Your task to perform on an android device: Open the map Image 0: 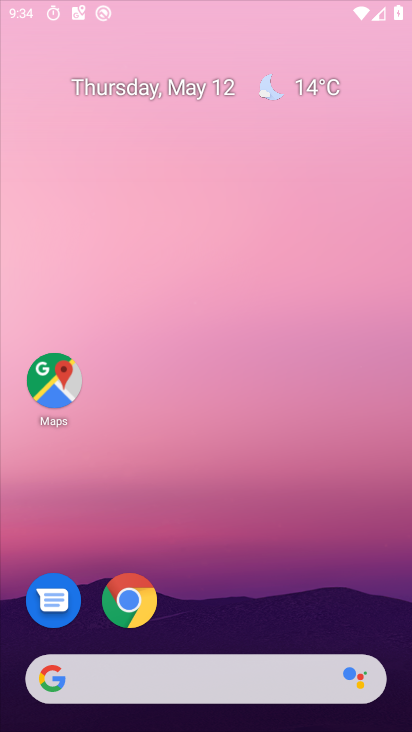
Step 0: press back button
Your task to perform on an android device: Open the map Image 1: 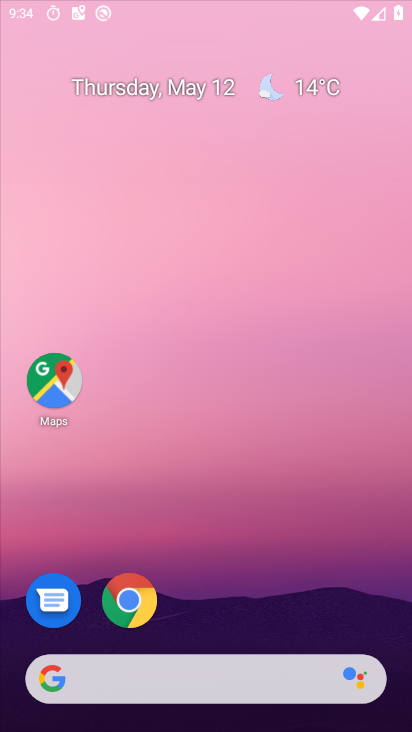
Step 1: click (139, 20)
Your task to perform on an android device: Open the map Image 2: 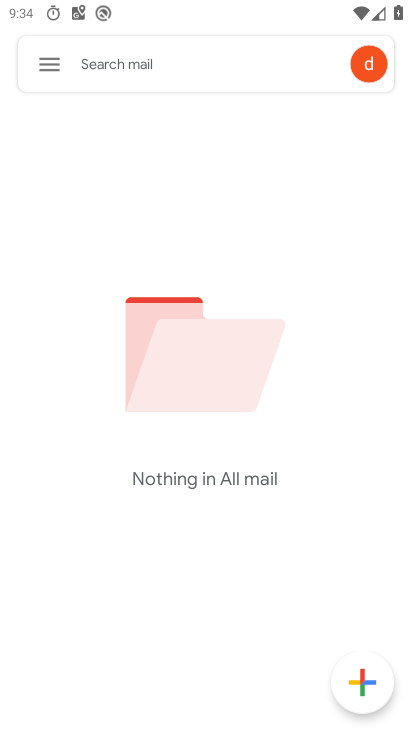
Step 2: press home button
Your task to perform on an android device: Open the map Image 3: 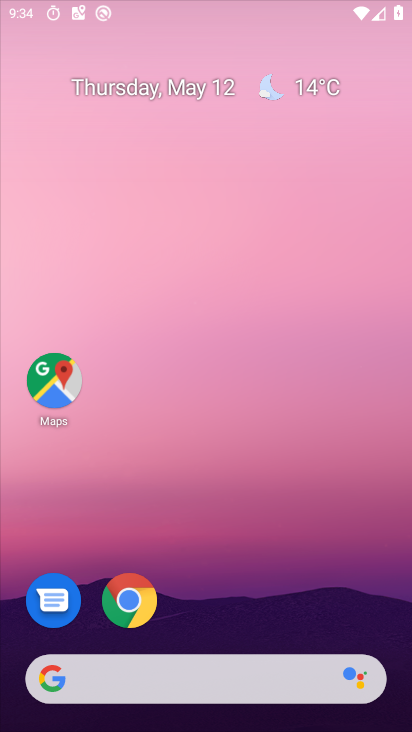
Step 3: press home button
Your task to perform on an android device: Open the map Image 4: 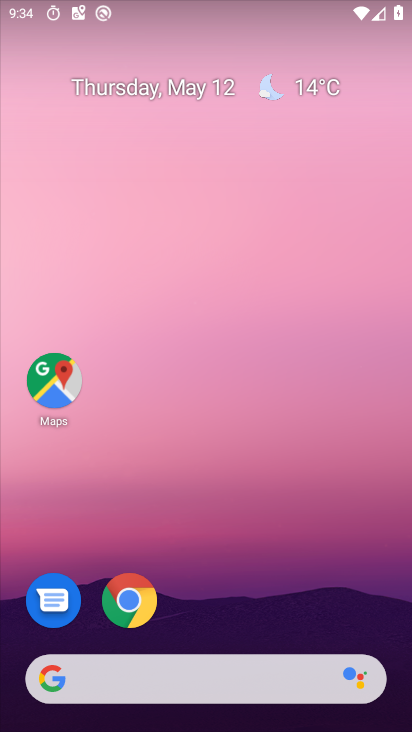
Step 4: drag from (200, 471) to (96, 72)
Your task to perform on an android device: Open the map Image 5: 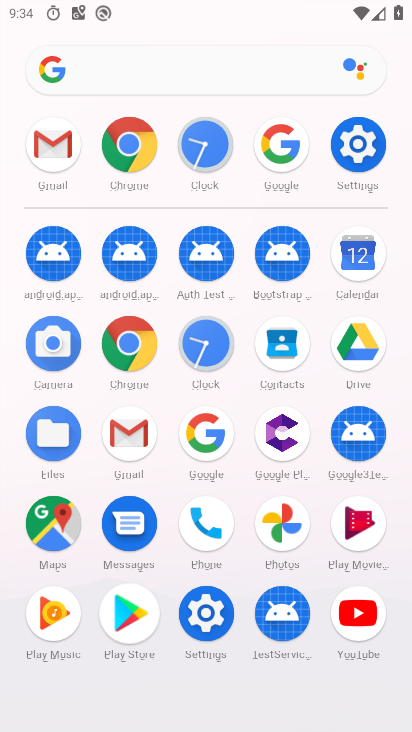
Step 5: click (48, 526)
Your task to perform on an android device: Open the map Image 6: 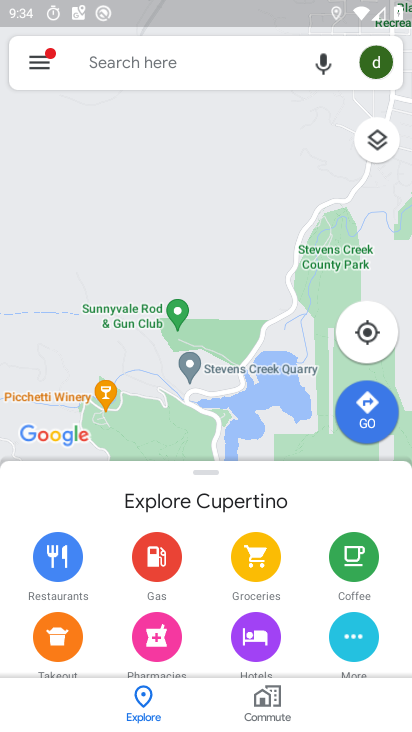
Step 6: task complete